Your task to perform on an android device: toggle pop-ups in chrome Image 0: 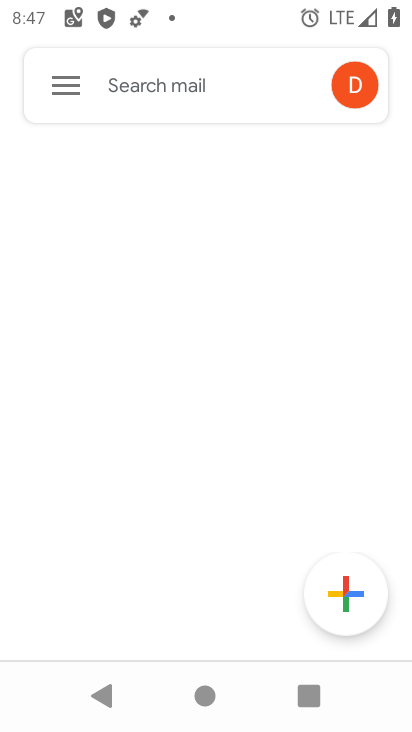
Step 0: press home button
Your task to perform on an android device: toggle pop-ups in chrome Image 1: 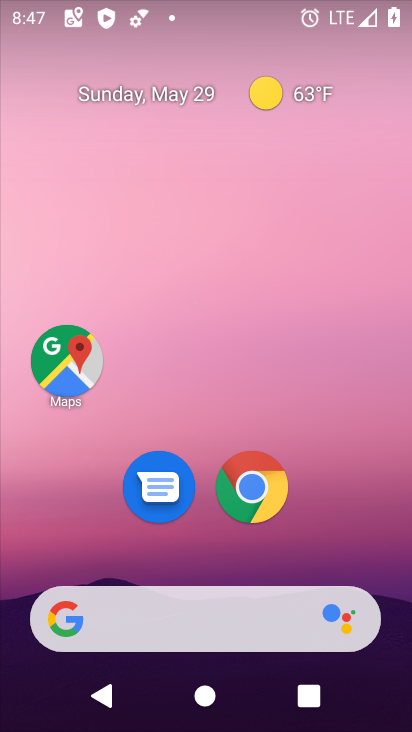
Step 1: click (253, 498)
Your task to perform on an android device: toggle pop-ups in chrome Image 2: 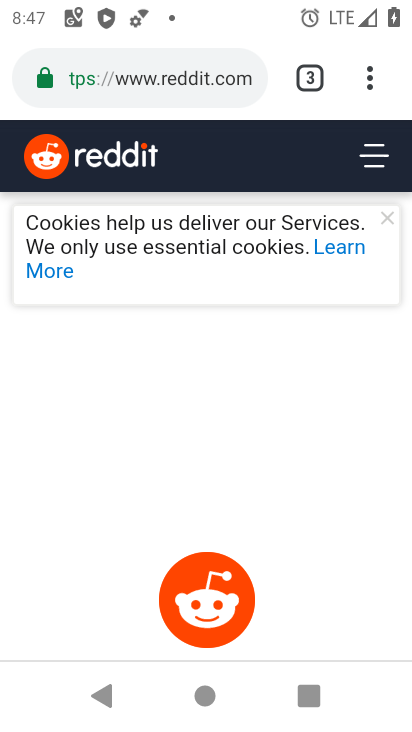
Step 2: click (372, 77)
Your task to perform on an android device: toggle pop-ups in chrome Image 3: 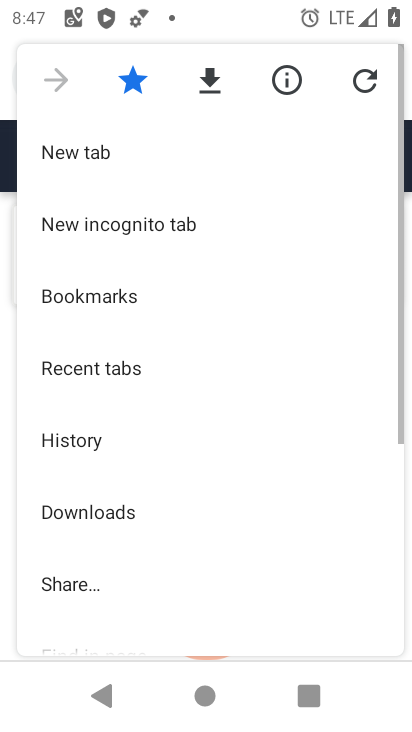
Step 3: drag from (173, 456) to (220, 142)
Your task to perform on an android device: toggle pop-ups in chrome Image 4: 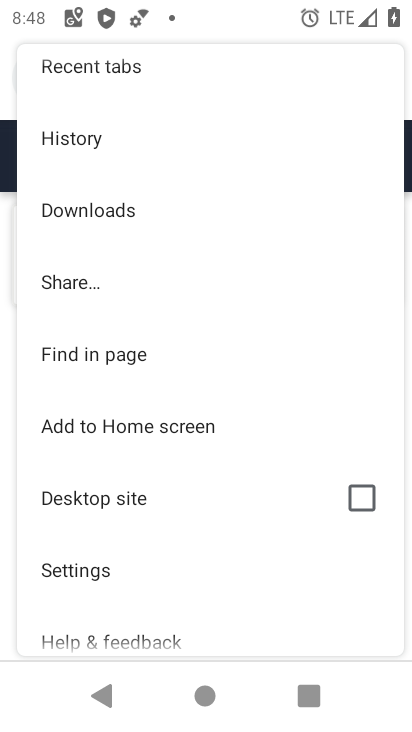
Step 4: click (98, 566)
Your task to perform on an android device: toggle pop-ups in chrome Image 5: 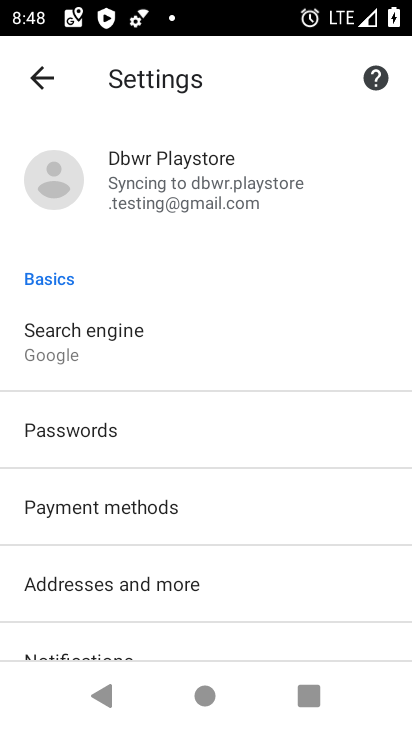
Step 5: drag from (142, 515) to (189, 281)
Your task to perform on an android device: toggle pop-ups in chrome Image 6: 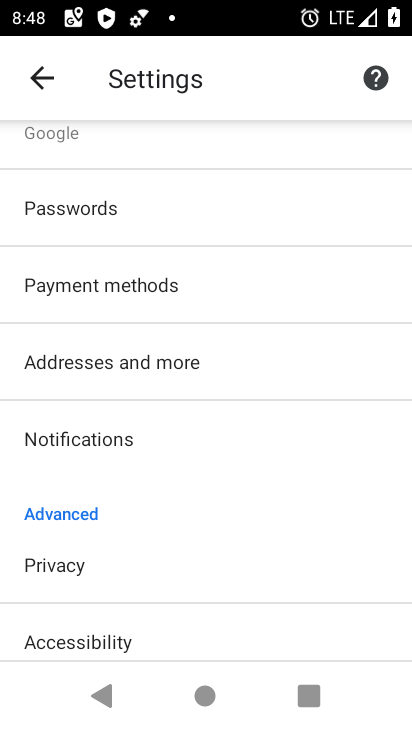
Step 6: drag from (158, 515) to (201, 279)
Your task to perform on an android device: toggle pop-ups in chrome Image 7: 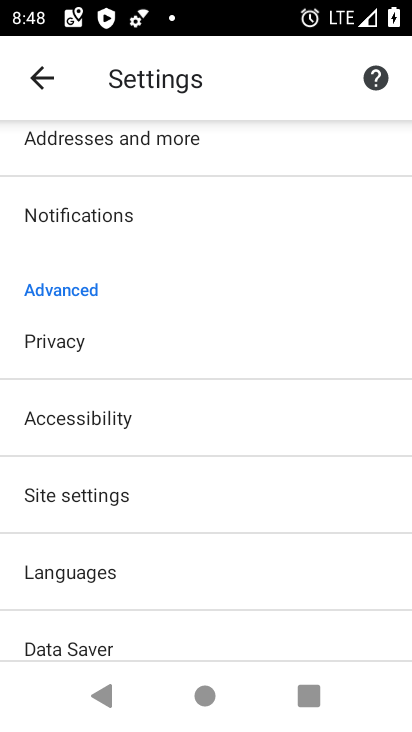
Step 7: click (90, 507)
Your task to perform on an android device: toggle pop-ups in chrome Image 8: 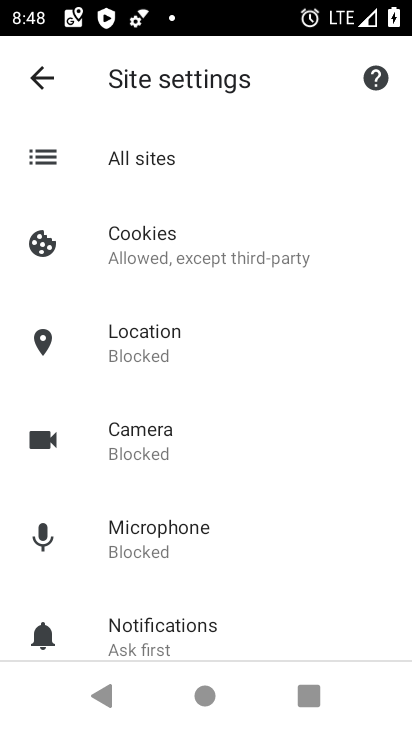
Step 8: drag from (256, 528) to (253, 293)
Your task to perform on an android device: toggle pop-ups in chrome Image 9: 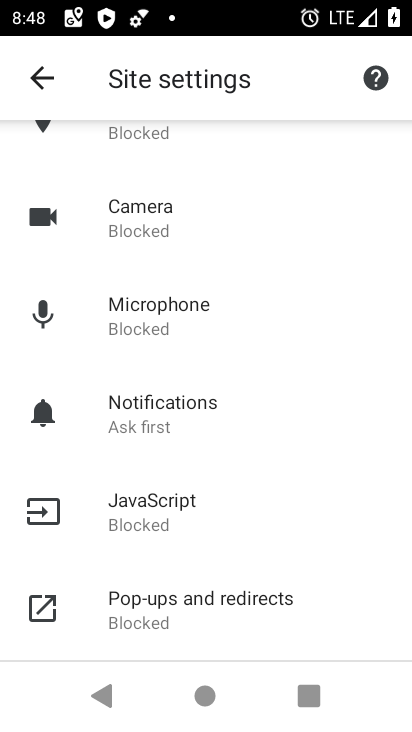
Step 9: drag from (195, 540) to (277, 251)
Your task to perform on an android device: toggle pop-ups in chrome Image 10: 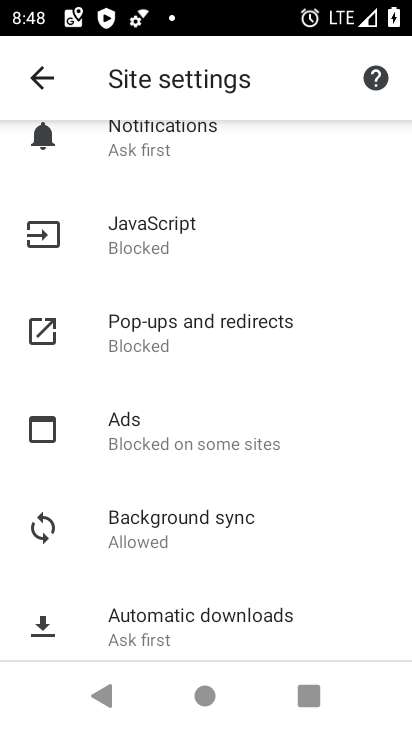
Step 10: click (195, 326)
Your task to perform on an android device: toggle pop-ups in chrome Image 11: 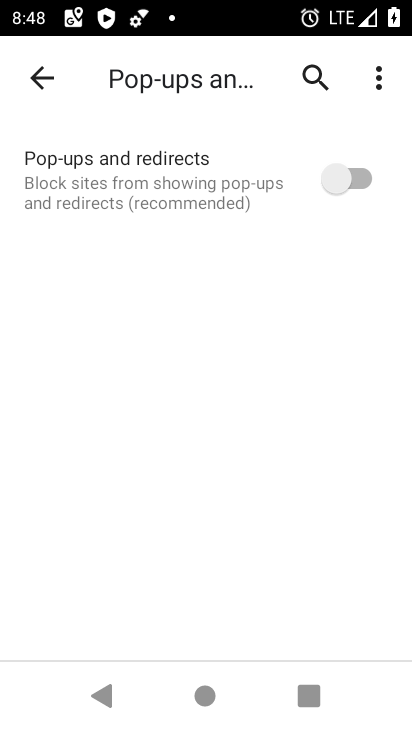
Step 11: click (355, 178)
Your task to perform on an android device: toggle pop-ups in chrome Image 12: 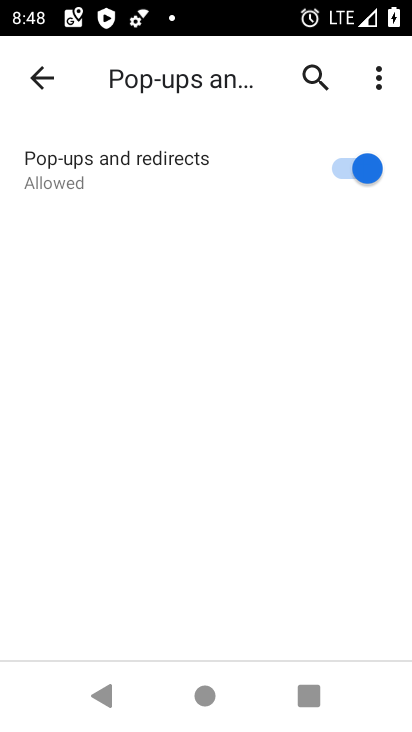
Step 12: task complete